Your task to perform on an android device: Go to eBay Image 0: 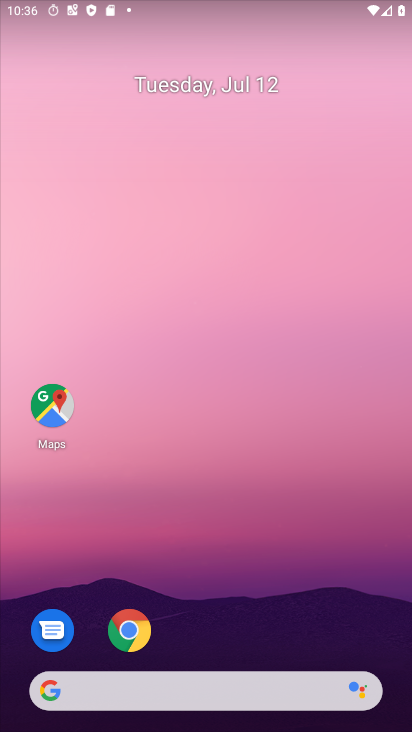
Step 0: drag from (210, 653) to (217, 133)
Your task to perform on an android device: Go to eBay Image 1: 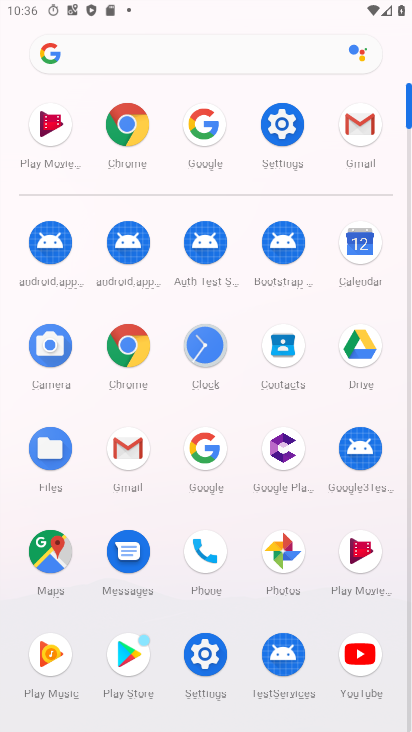
Step 1: click (203, 130)
Your task to perform on an android device: Go to eBay Image 2: 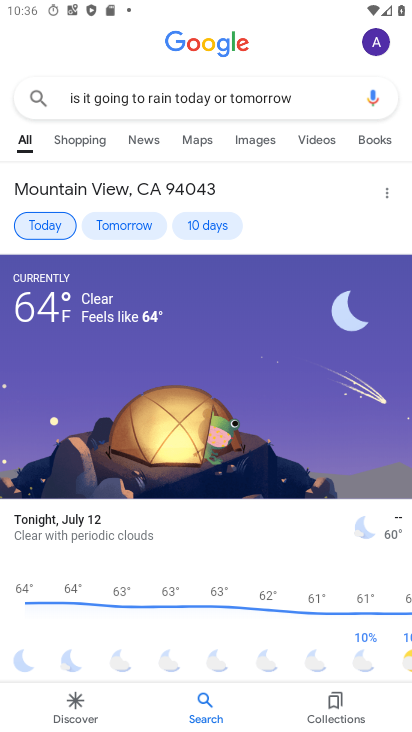
Step 2: click (284, 88)
Your task to perform on an android device: Go to eBay Image 3: 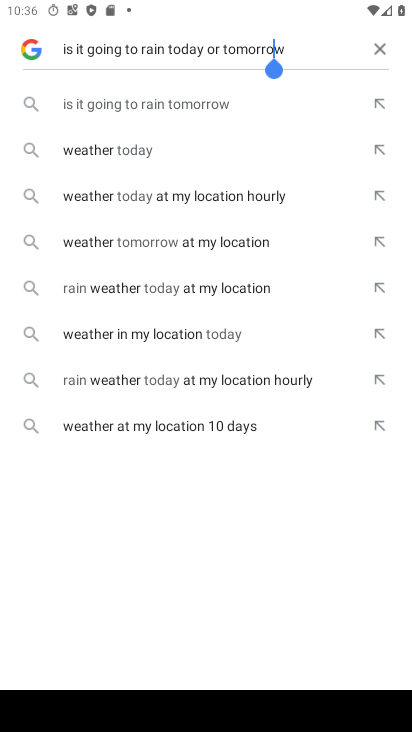
Step 3: click (377, 45)
Your task to perform on an android device: Go to eBay Image 4: 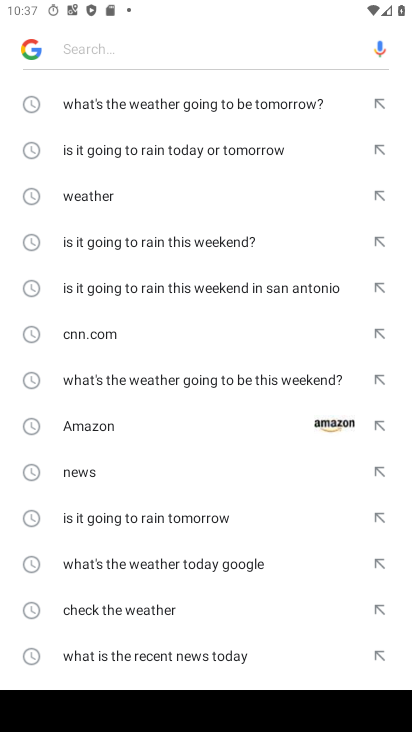
Step 4: type "ebay"
Your task to perform on an android device: Go to eBay Image 5: 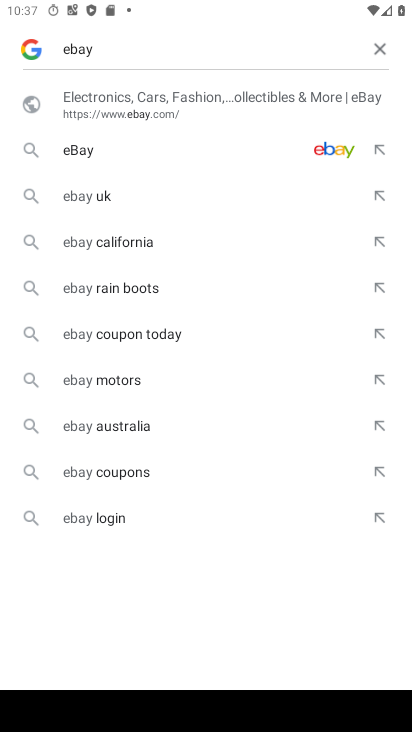
Step 5: click (167, 153)
Your task to perform on an android device: Go to eBay Image 6: 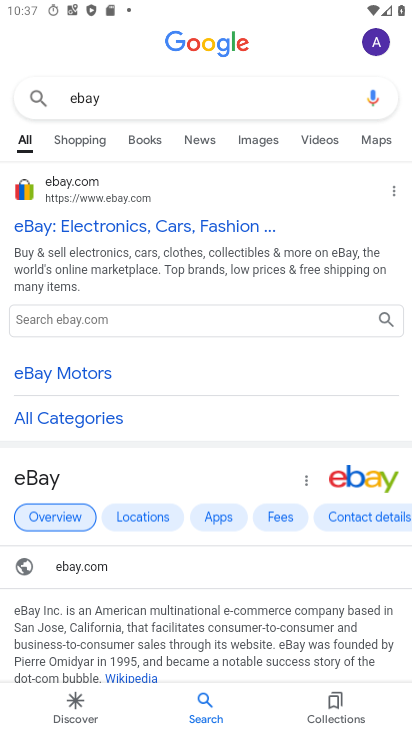
Step 6: click (142, 234)
Your task to perform on an android device: Go to eBay Image 7: 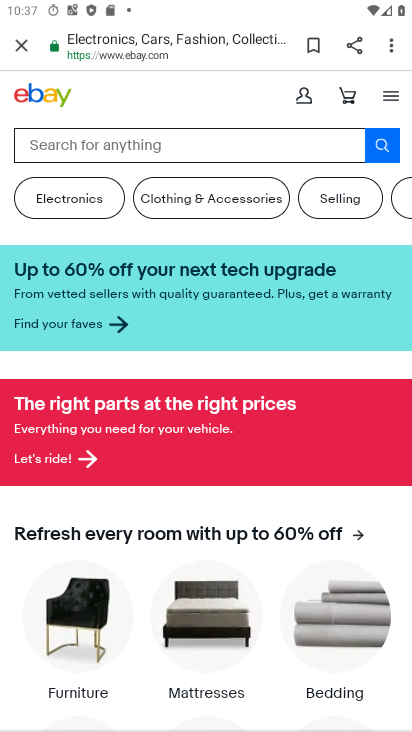
Step 7: task complete